Your task to perform on an android device: Open the web browser Image 0: 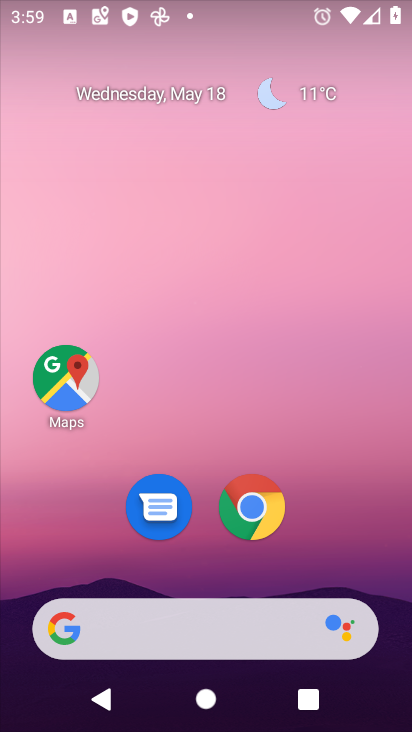
Step 0: click (253, 508)
Your task to perform on an android device: Open the web browser Image 1: 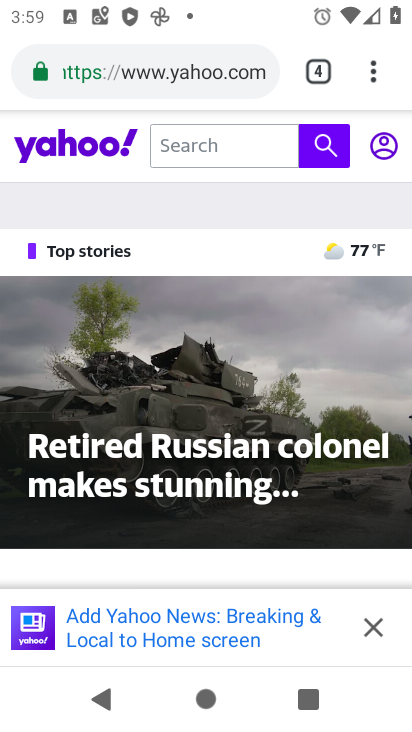
Step 1: task complete